Your task to perform on an android device: Open Wikipedia Image 0: 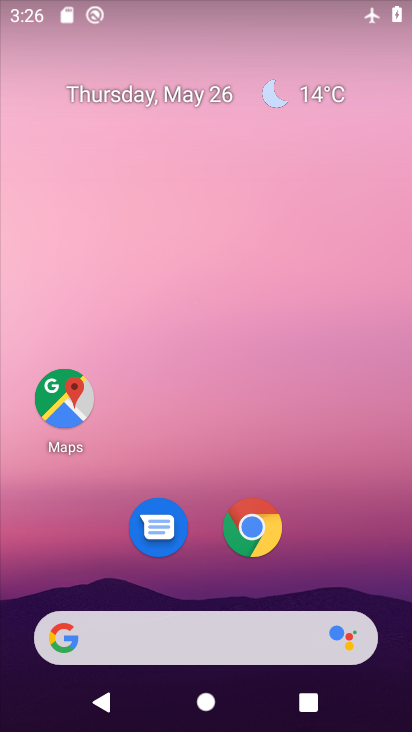
Step 0: click (264, 528)
Your task to perform on an android device: Open Wikipedia Image 1: 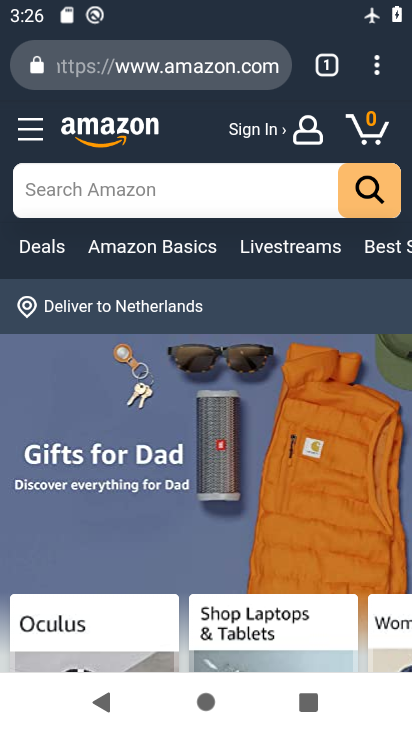
Step 1: click (319, 70)
Your task to perform on an android device: Open Wikipedia Image 2: 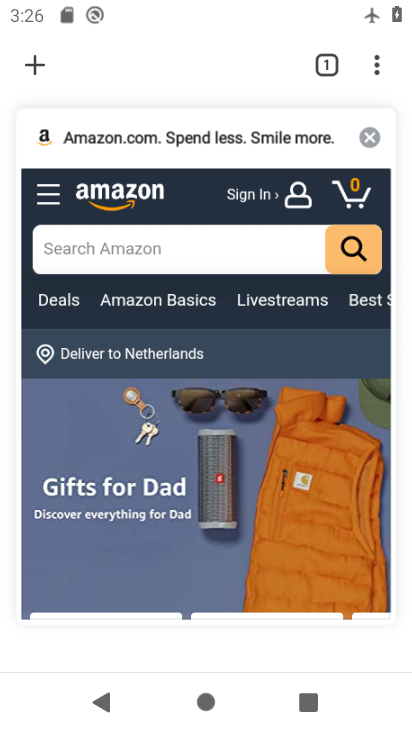
Step 2: click (47, 73)
Your task to perform on an android device: Open Wikipedia Image 3: 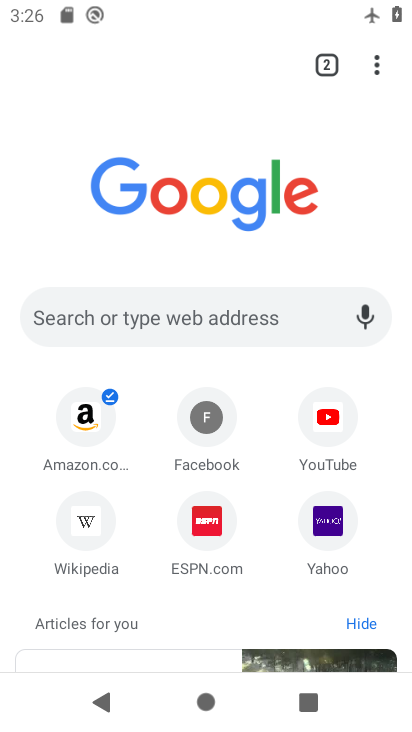
Step 3: click (91, 525)
Your task to perform on an android device: Open Wikipedia Image 4: 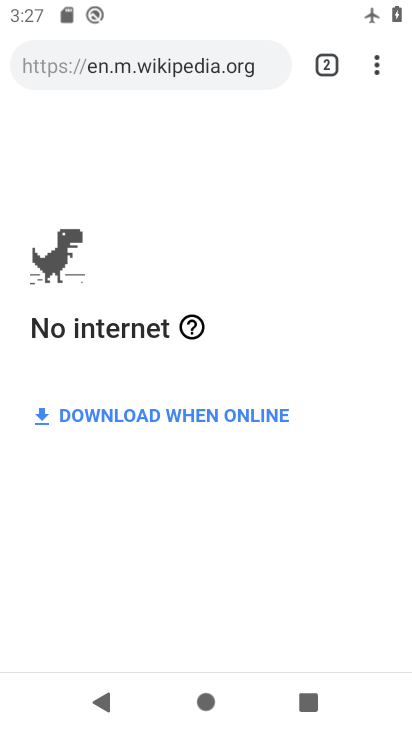
Step 4: task complete